Your task to perform on an android device: Show me popular videos on Youtube Image 0: 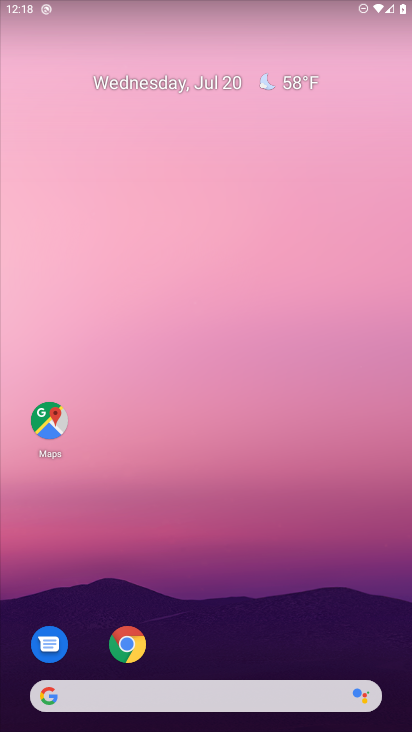
Step 0: drag from (16, 692) to (184, 170)
Your task to perform on an android device: Show me popular videos on Youtube Image 1: 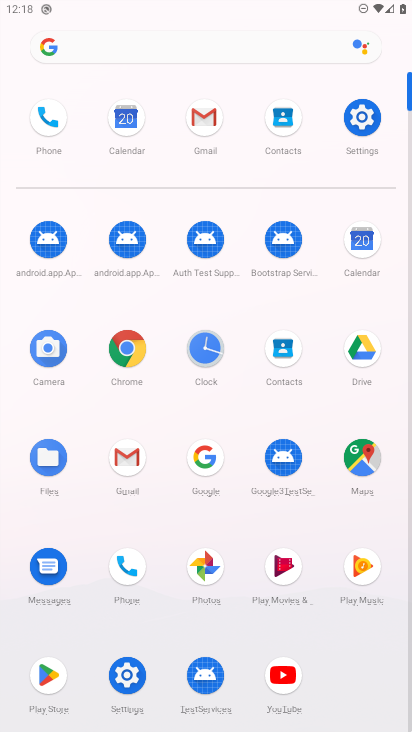
Step 1: click (277, 688)
Your task to perform on an android device: Show me popular videos on Youtube Image 2: 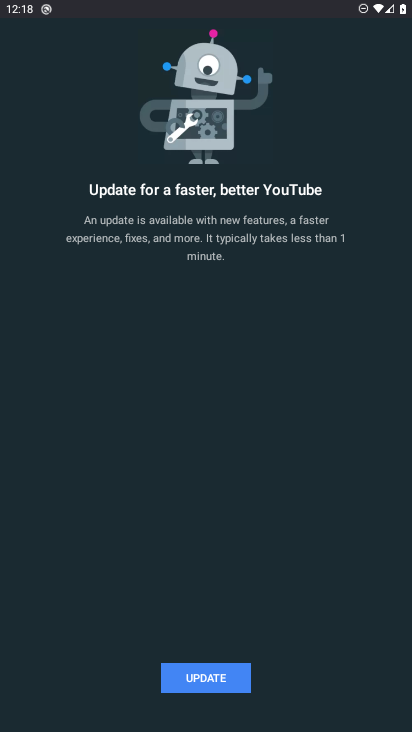
Step 2: click (196, 679)
Your task to perform on an android device: Show me popular videos on Youtube Image 3: 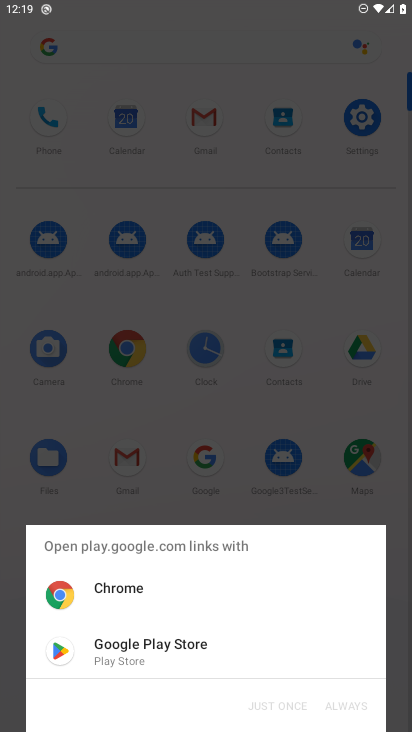
Step 3: click (138, 643)
Your task to perform on an android device: Show me popular videos on Youtube Image 4: 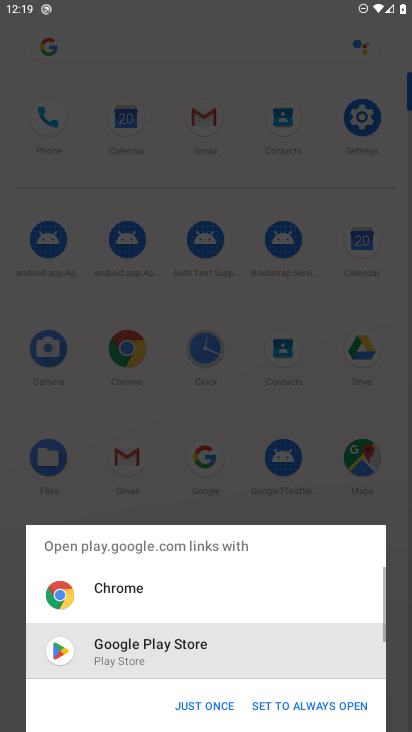
Step 4: click (219, 702)
Your task to perform on an android device: Show me popular videos on Youtube Image 5: 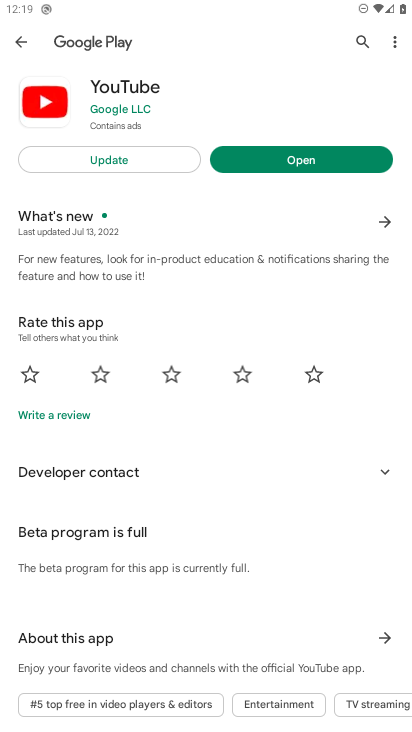
Step 5: click (333, 173)
Your task to perform on an android device: Show me popular videos on Youtube Image 6: 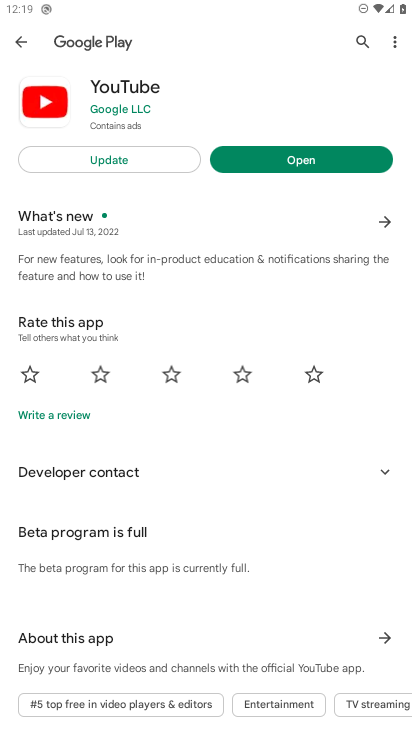
Step 6: click (331, 163)
Your task to perform on an android device: Show me popular videos on Youtube Image 7: 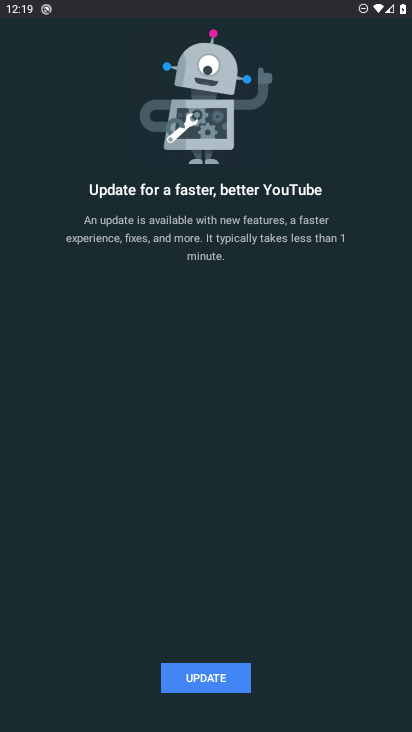
Step 7: task complete